Your task to perform on an android device: delete browsing data in the chrome app Image 0: 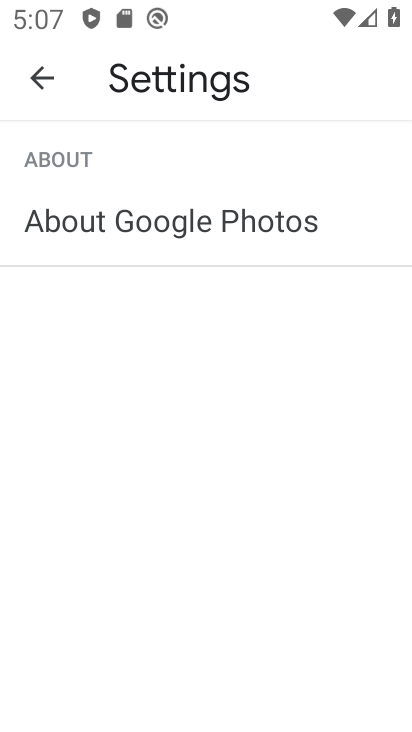
Step 0: press back button
Your task to perform on an android device: delete browsing data in the chrome app Image 1: 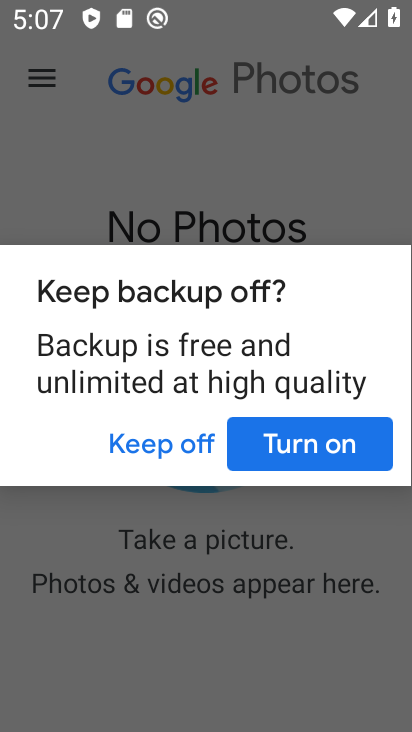
Step 1: press home button
Your task to perform on an android device: delete browsing data in the chrome app Image 2: 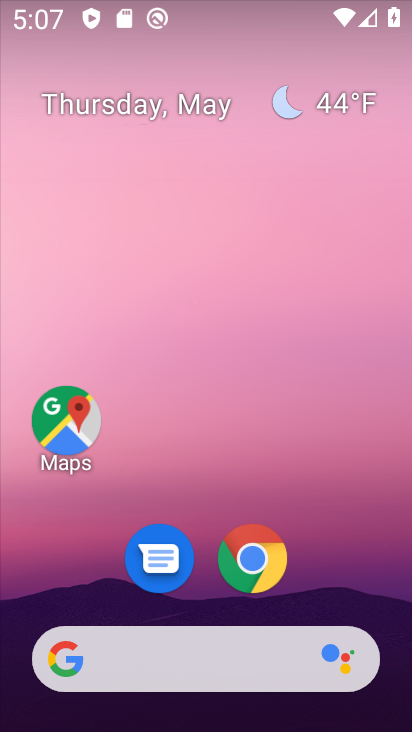
Step 2: drag from (298, 582) to (291, 54)
Your task to perform on an android device: delete browsing data in the chrome app Image 3: 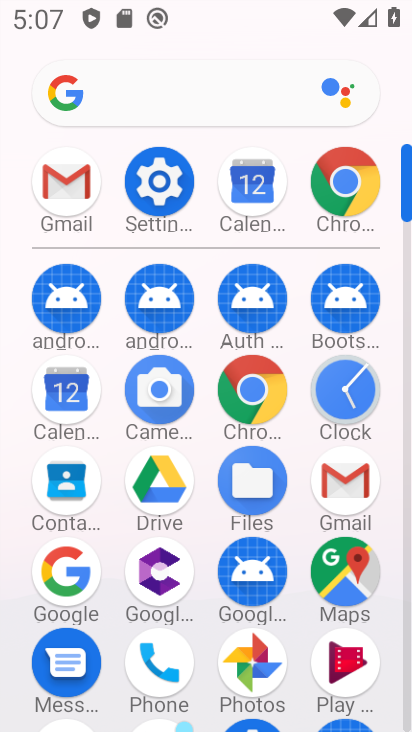
Step 3: drag from (11, 553) to (7, 279)
Your task to perform on an android device: delete browsing data in the chrome app Image 4: 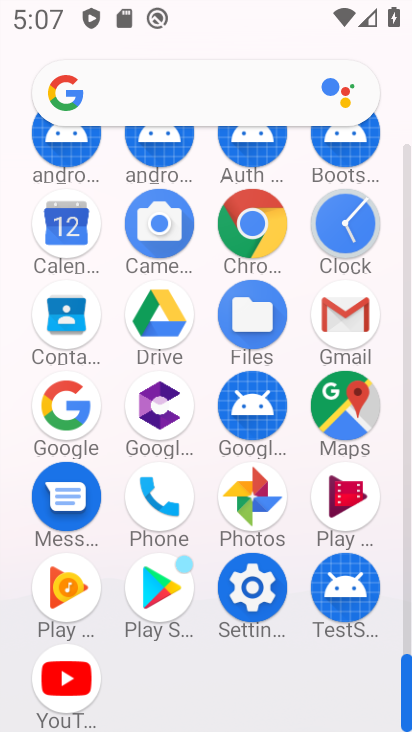
Step 4: click (248, 223)
Your task to perform on an android device: delete browsing data in the chrome app Image 5: 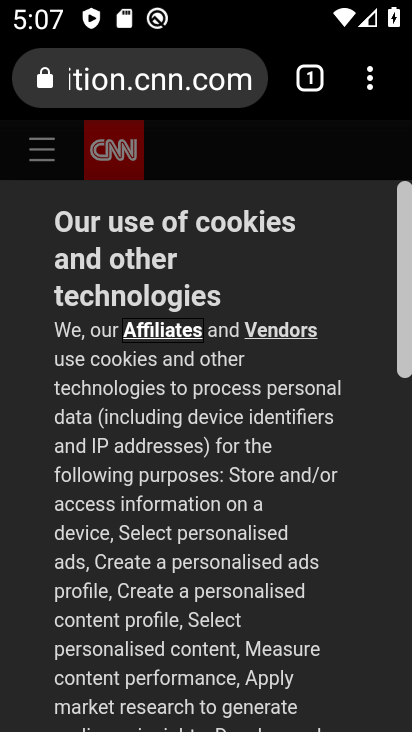
Step 5: drag from (366, 81) to (188, 426)
Your task to perform on an android device: delete browsing data in the chrome app Image 6: 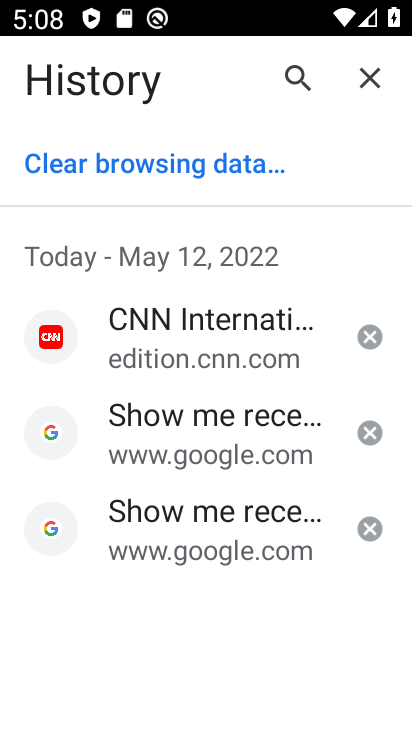
Step 6: click (197, 165)
Your task to perform on an android device: delete browsing data in the chrome app Image 7: 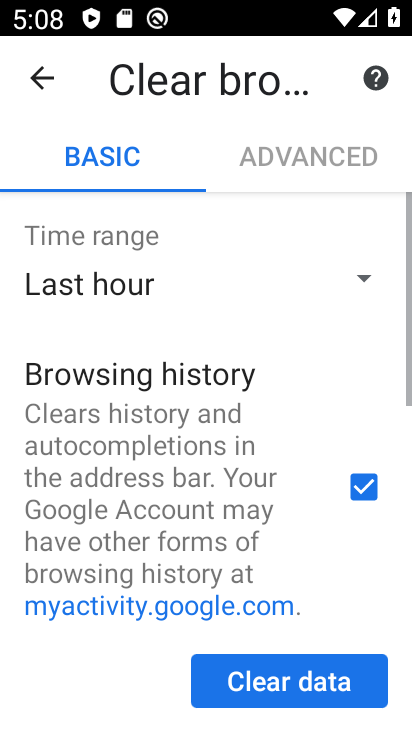
Step 7: click (309, 673)
Your task to perform on an android device: delete browsing data in the chrome app Image 8: 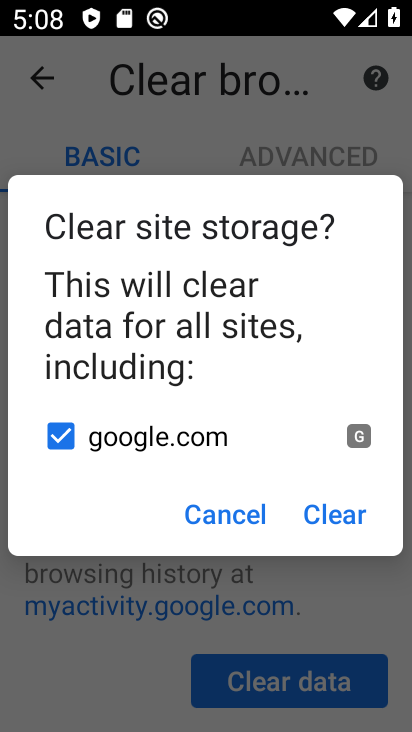
Step 8: click (318, 513)
Your task to perform on an android device: delete browsing data in the chrome app Image 9: 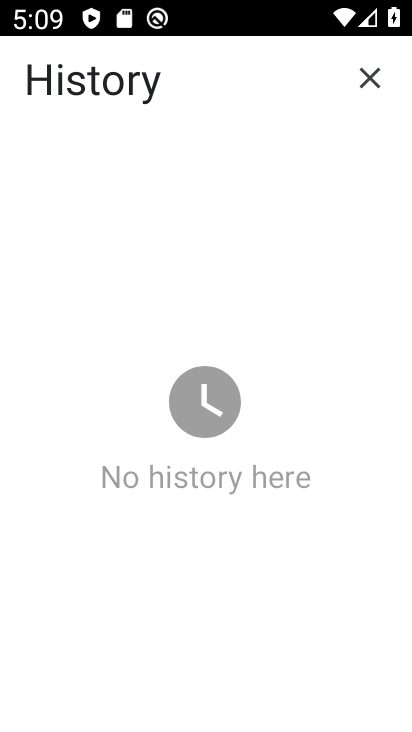
Step 9: task complete